Your task to perform on an android device: Show me popular videos on Youtube Image 0: 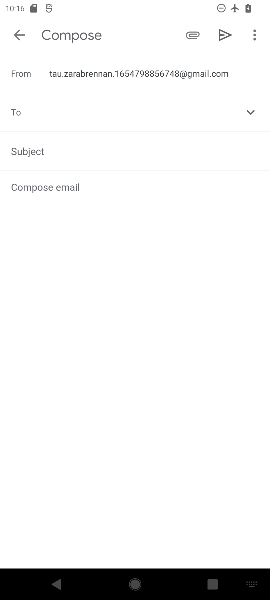
Step 0: press home button
Your task to perform on an android device: Show me popular videos on Youtube Image 1: 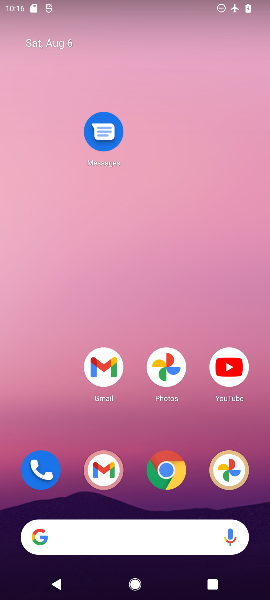
Step 1: click (240, 369)
Your task to perform on an android device: Show me popular videos on Youtube Image 2: 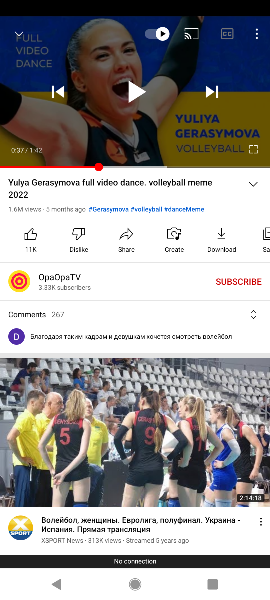
Step 2: drag from (99, 158) to (77, 409)
Your task to perform on an android device: Show me popular videos on Youtube Image 3: 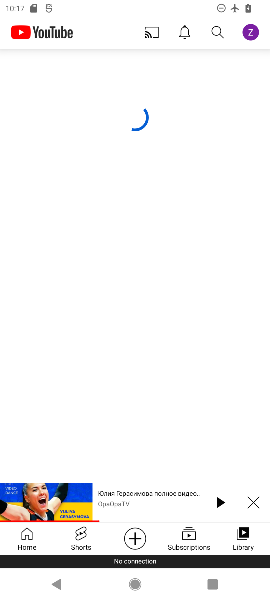
Step 3: drag from (110, 565) to (24, 592)
Your task to perform on an android device: Show me popular videos on Youtube Image 4: 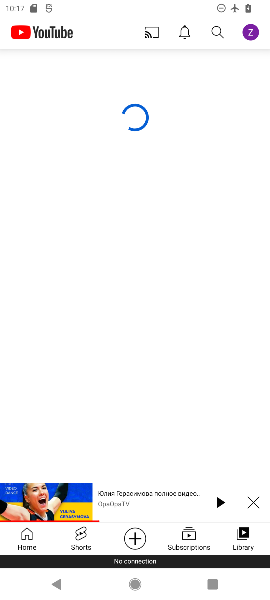
Step 4: click (28, 540)
Your task to perform on an android device: Show me popular videos on Youtube Image 5: 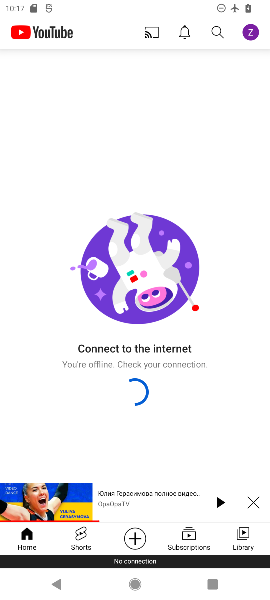
Step 5: task complete